Your task to perform on an android device: Open notification settings Image 0: 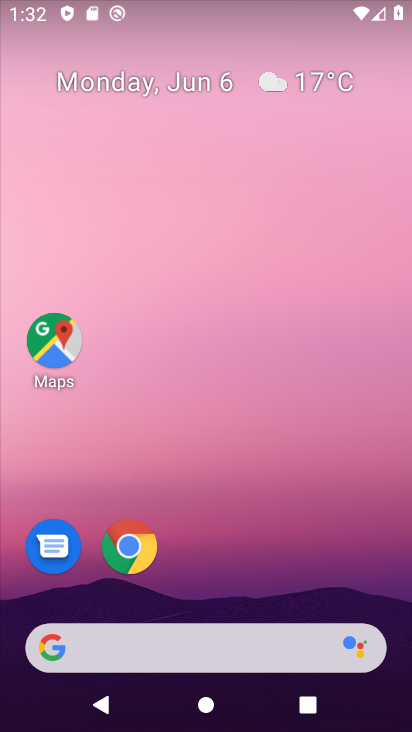
Step 0: drag from (177, 14) to (204, 622)
Your task to perform on an android device: Open notification settings Image 1: 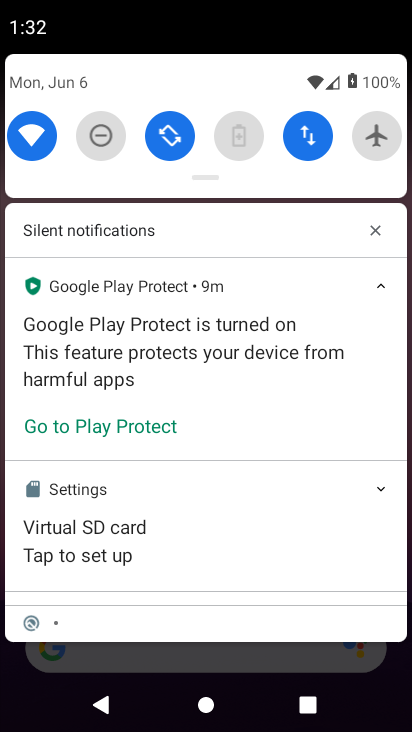
Step 1: drag from (211, 188) to (205, 392)
Your task to perform on an android device: Open notification settings Image 2: 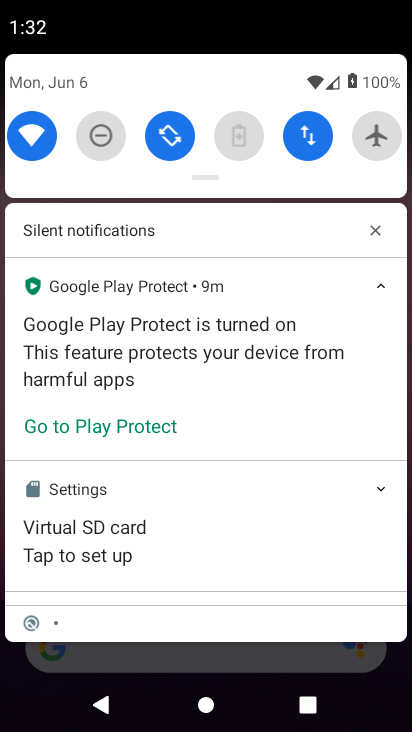
Step 2: drag from (213, 189) to (170, 583)
Your task to perform on an android device: Open notification settings Image 3: 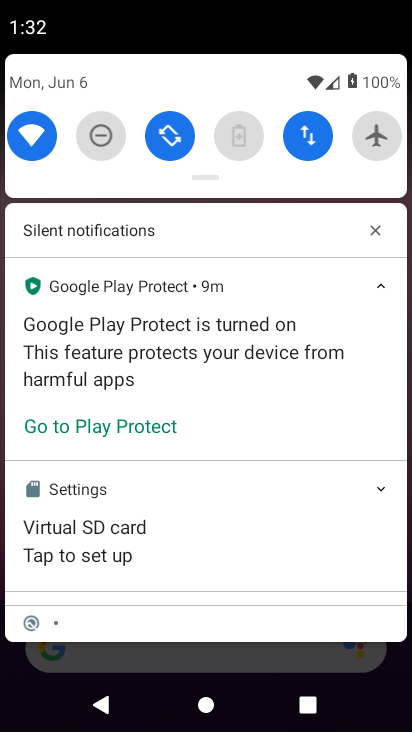
Step 3: drag from (204, 180) to (176, 634)
Your task to perform on an android device: Open notification settings Image 4: 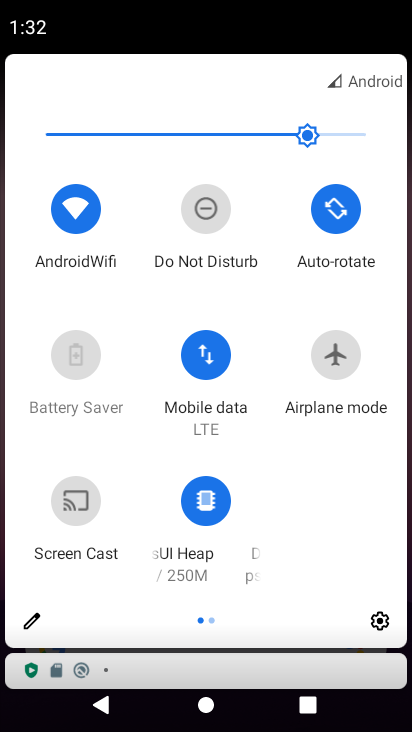
Step 4: click (371, 623)
Your task to perform on an android device: Open notification settings Image 5: 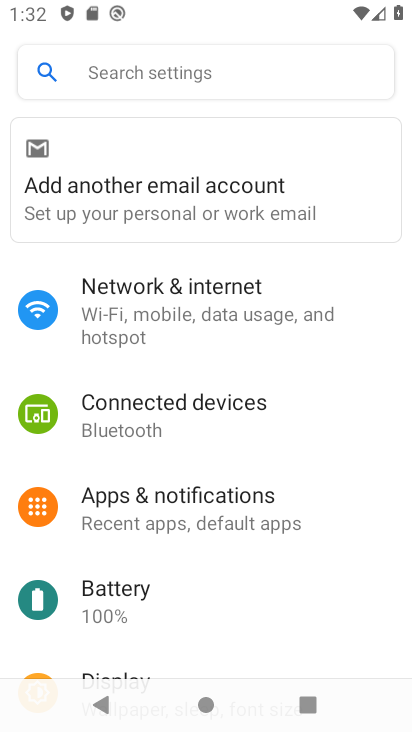
Step 5: click (251, 517)
Your task to perform on an android device: Open notification settings Image 6: 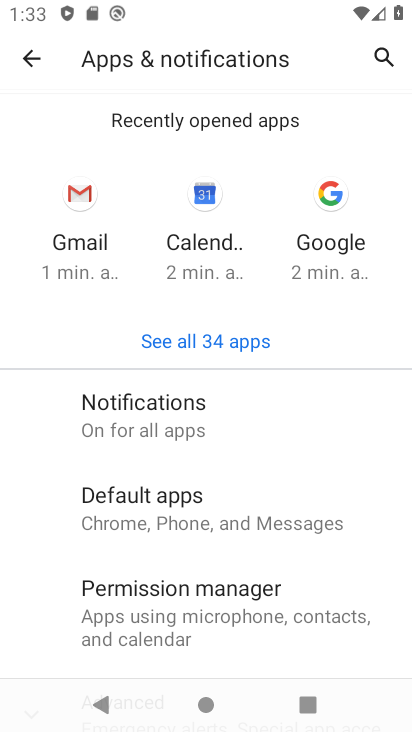
Step 6: click (188, 436)
Your task to perform on an android device: Open notification settings Image 7: 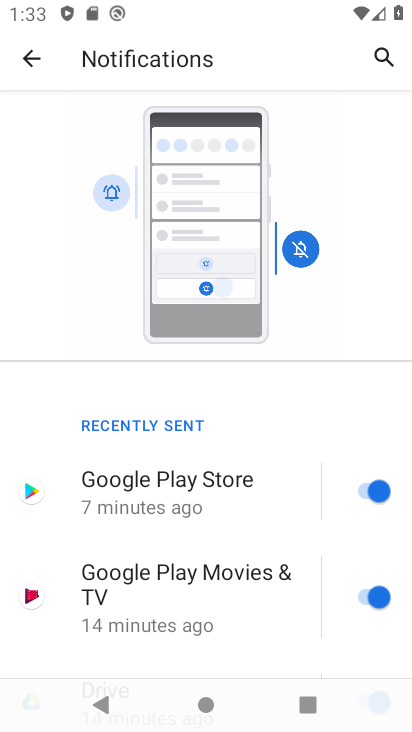
Step 7: task complete